Your task to perform on an android device: Search for a new foundation (skincare) product Image 0: 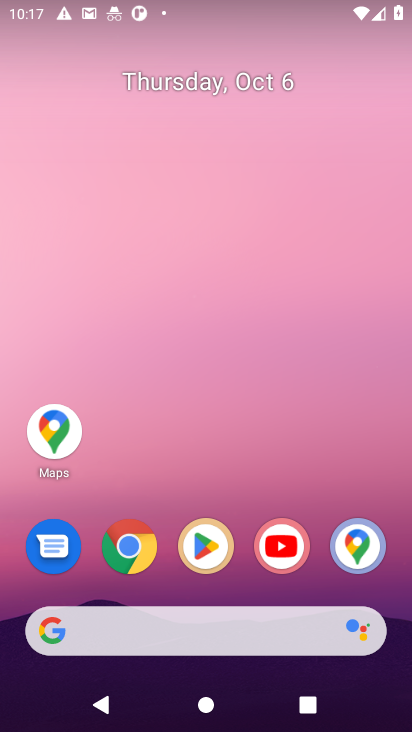
Step 0: click (131, 545)
Your task to perform on an android device: Search for a new foundation (skincare) product Image 1: 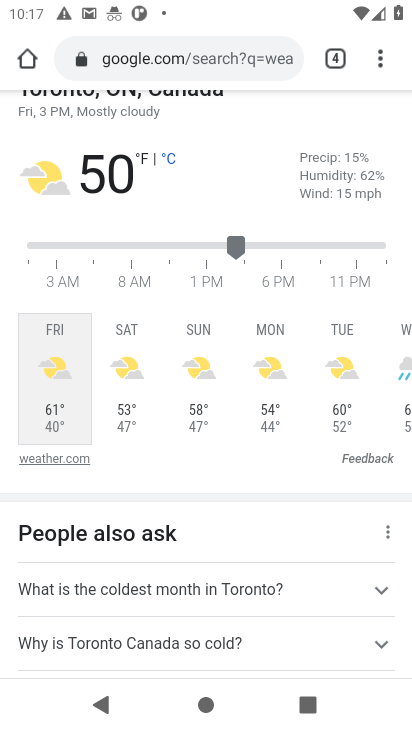
Step 1: click (163, 42)
Your task to perform on an android device: Search for a new foundation (skincare) product Image 2: 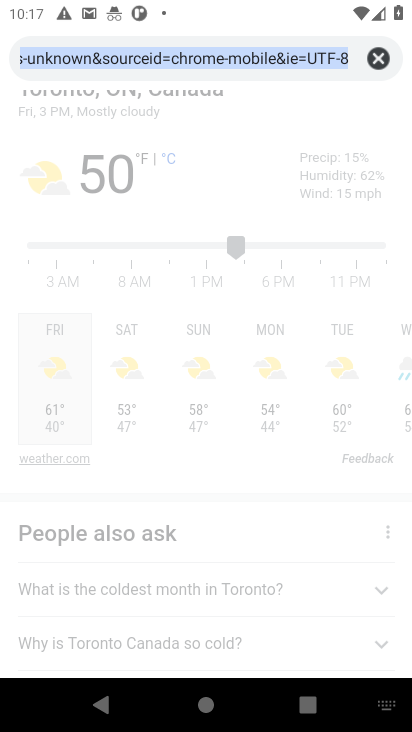
Step 2: click (378, 58)
Your task to perform on an android device: Search for a new foundation (skincare) product Image 3: 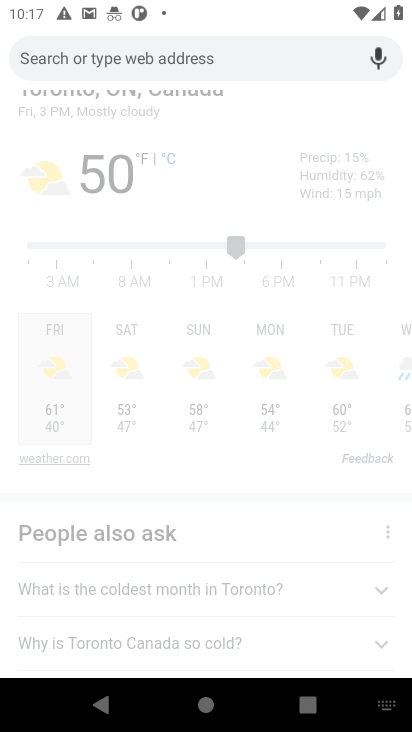
Step 3: type "new foundation (skincare) product"
Your task to perform on an android device: Search for a new foundation (skincare) product Image 4: 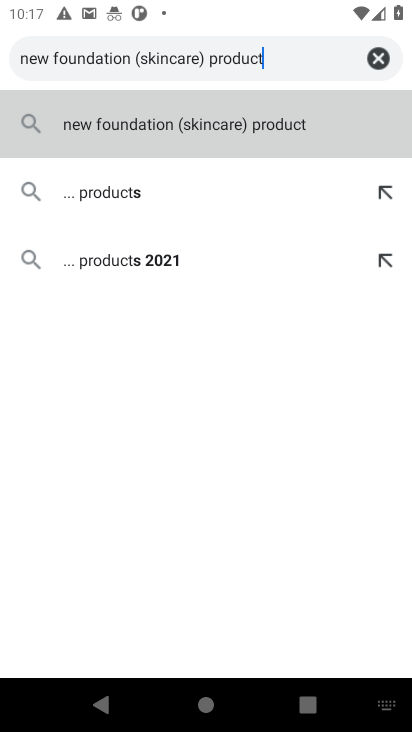
Step 4: click (139, 131)
Your task to perform on an android device: Search for a new foundation (skincare) product Image 5: 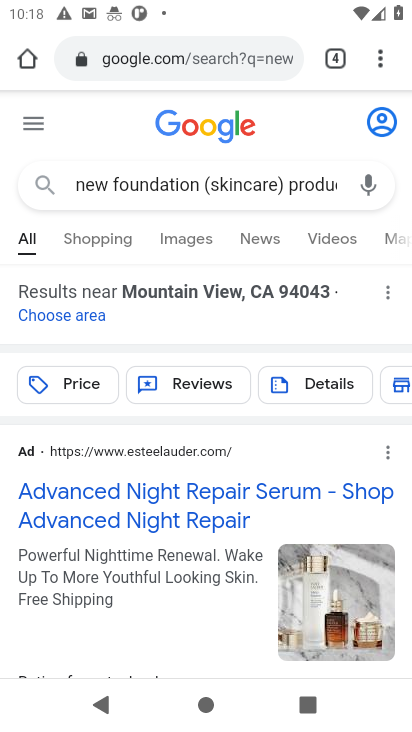
Step 5: drag from (157, 565) to (144, 271)
Your task to perform on an android device: Search for a new foundation (skincare) product Image 6: 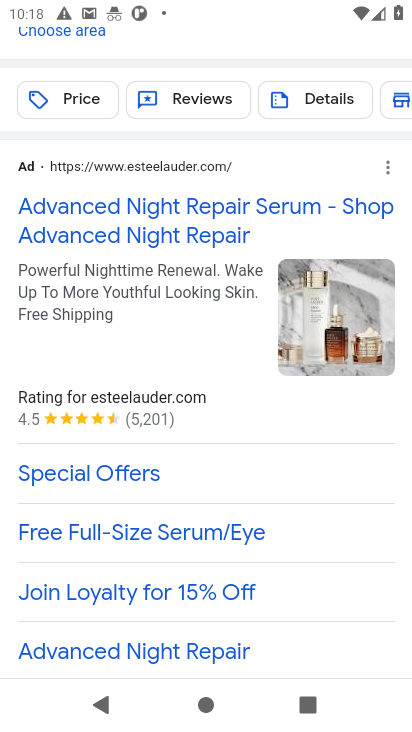
Step 6: drag from (186, 570) to (135, 119)
Your task to perform on an android device: Search for a new foundation (skincare) product Image 7: 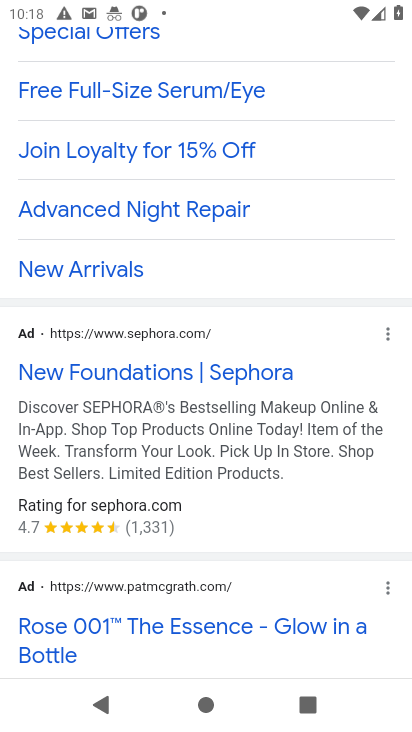
Step 7: click (110, 380)
Your task to perform on an android device: Search for a new foundation (skincare) product Image 8: 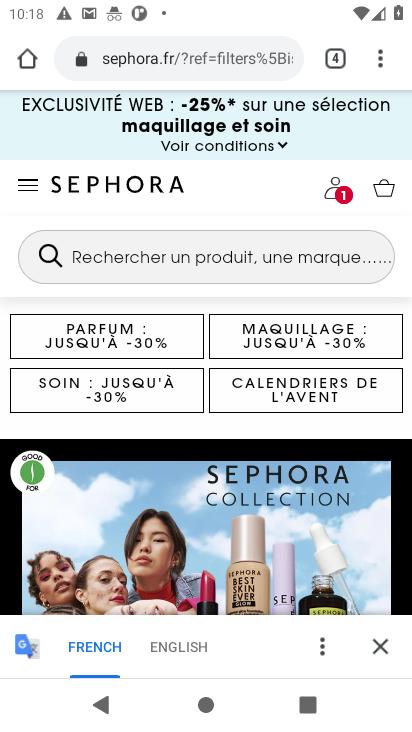
Step 8: click (374, 640)
Your task to perform on an android device: Search for a new foundation (skincare) product Image 9: 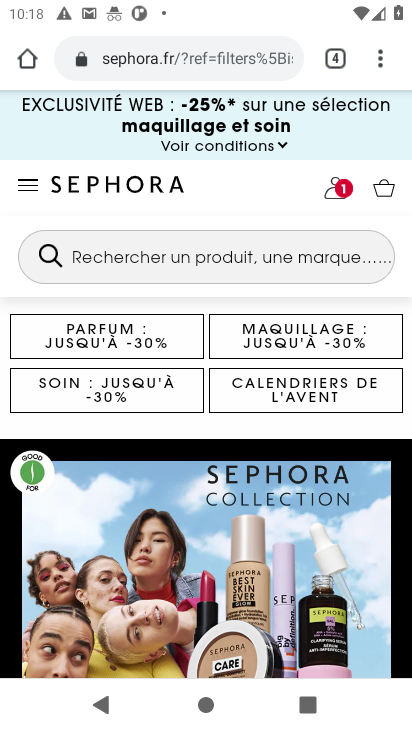
Step 9: task complete